Your task to perform on an android device: Open calendar and show me the third week of next month Image 0: 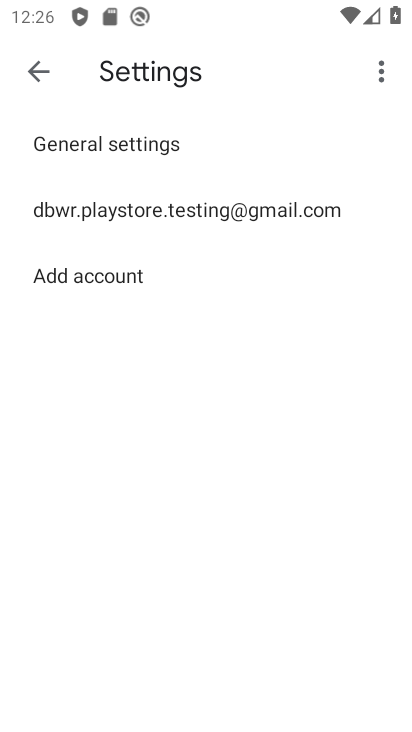
Step 0: drag from (211, 603) to (225, 277)
Your task to perform on an android device: Open calendar and show me the third week of next month Image 1: 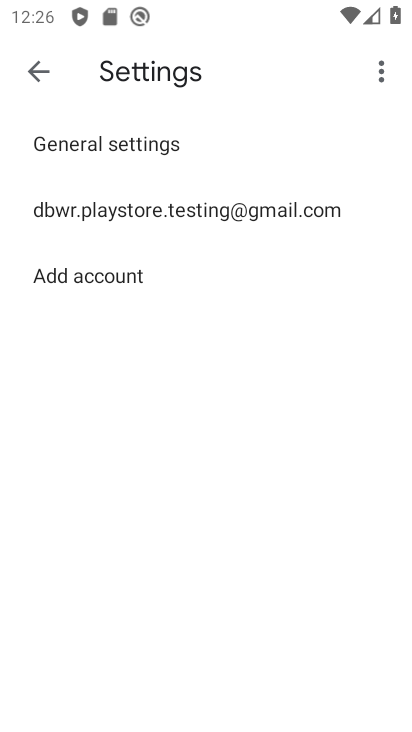
Step 1: press home button
Your task to perform on an android device: Open calendar and show me the third week of next month Image 2: 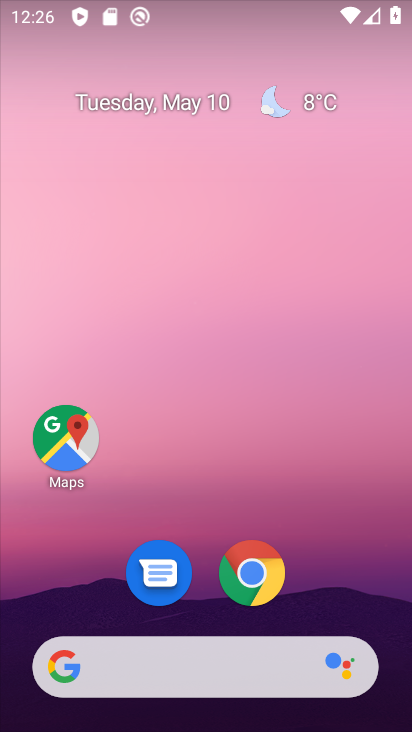
Step 2: drag from (222, 599) to (307, 42)
Your task to perform on an android device: Open calendar and show me the third week of next month Image 3: 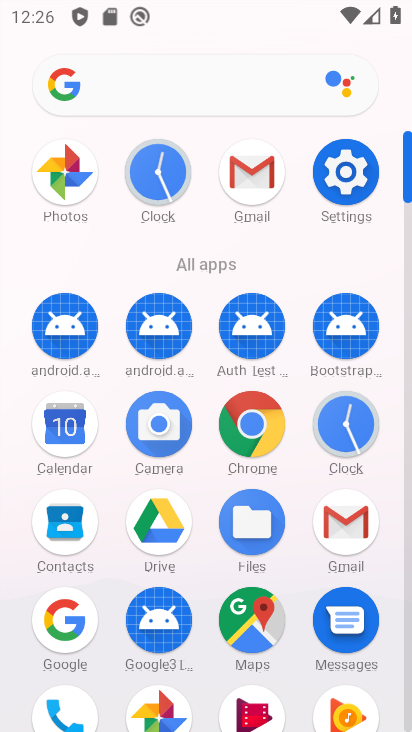
Step 3: click (61, 446)
Your task to perform on an android device: Open calendar and show me the third week of next month Image 4: 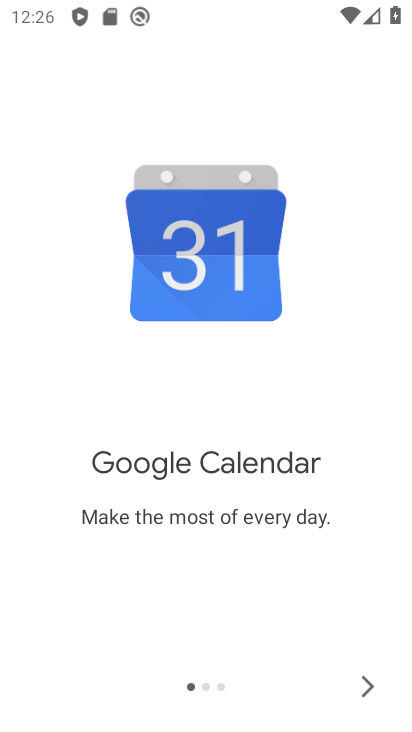
Step 4: click (369, 700)
Your task to perform on an android device: Open calendar and show me the third week of next month Image 5: 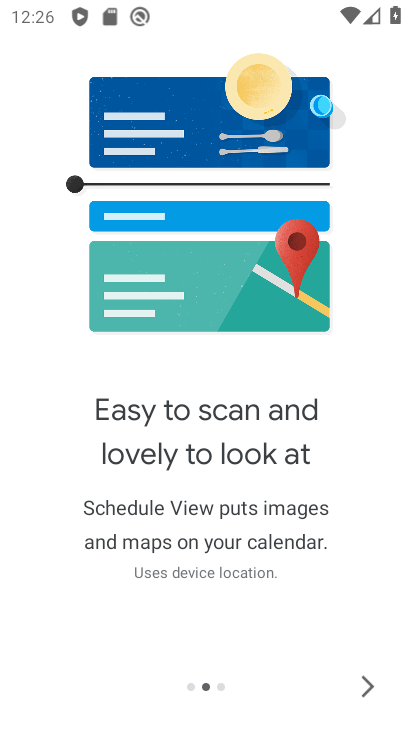
Step 5: click (369, 688)
Your task to perform on an android device: Open calendar and show me the third week of next month Image 6: 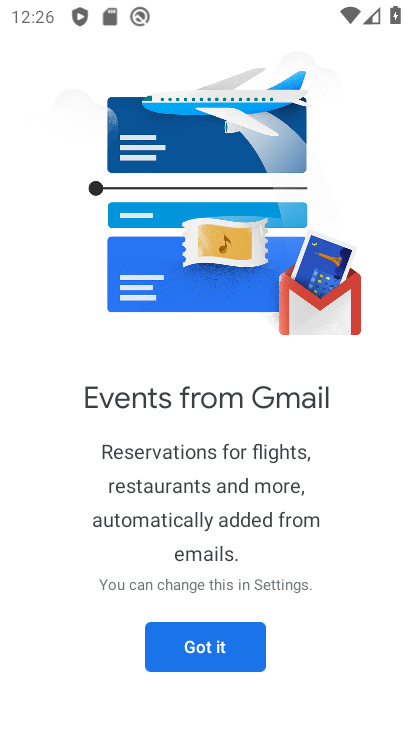
Step 6: click (207, 650)
Your task to perform on an android device: Open calendar and show me the third week of next month Image 7: 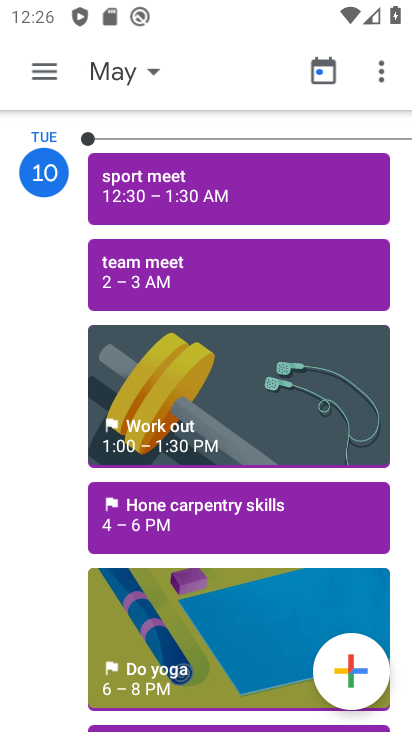
Step 7: click (47, 88)
Your task to perform on an android device: Open calendar and show me the third week of next month Image 8: 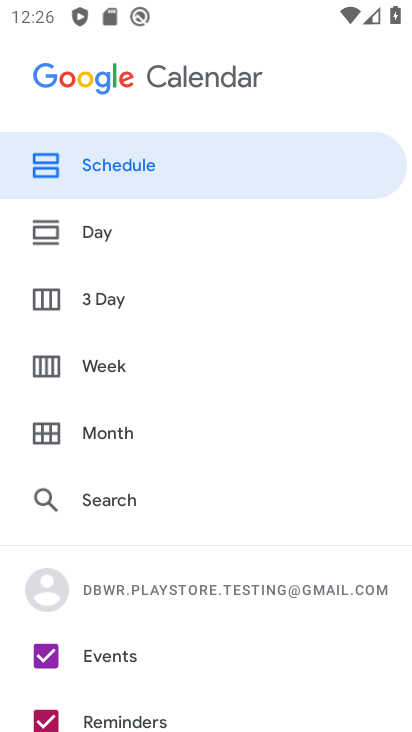
Step 8: click (123, 375)
Your task to perform on an android device: Open calendar and show me the third week of next month Image 9: 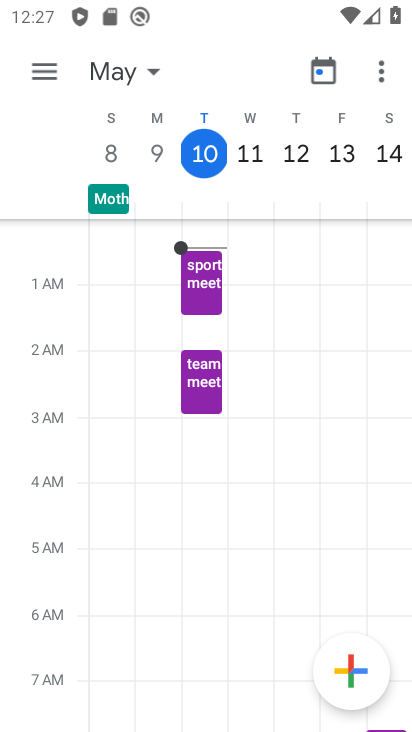
Step 9: task complete